Your task to perform on an android device: Open settings on Google Maps Image 0: 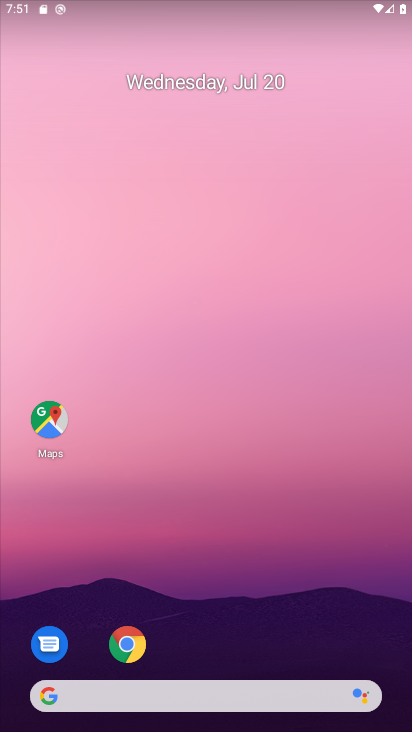
Step 0: click (48, 434)
Your task to perform on an android device: Open settings on Google Maps Image 1: 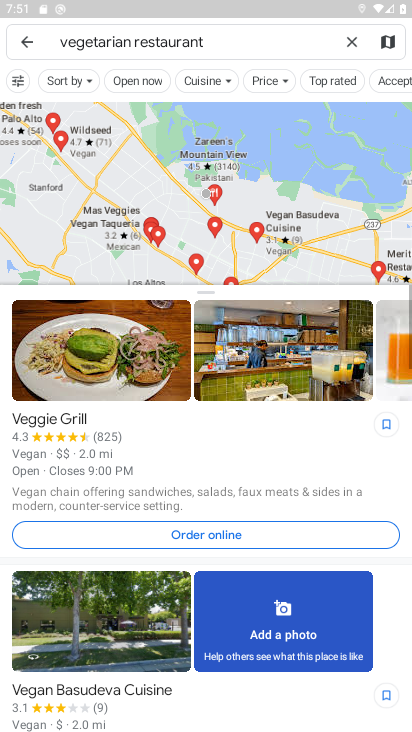
Step 1: click (41, 160)
Your task to perform on an android device: Open settings on Google Maps Image 2: 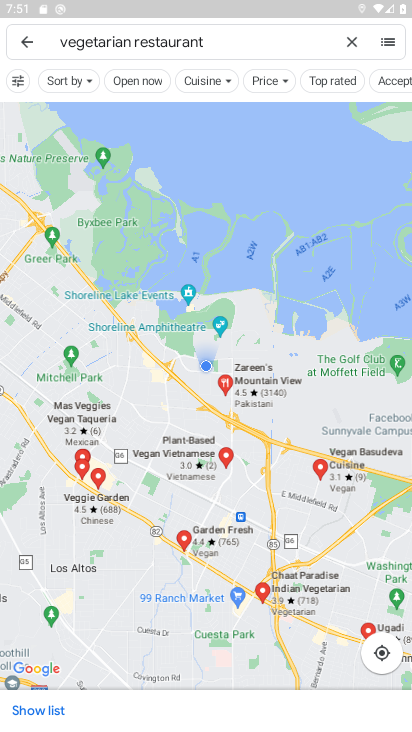
Step 2: click (27, 38)
Your task to perform on an android device: Open settings on Google Maps Image 3: 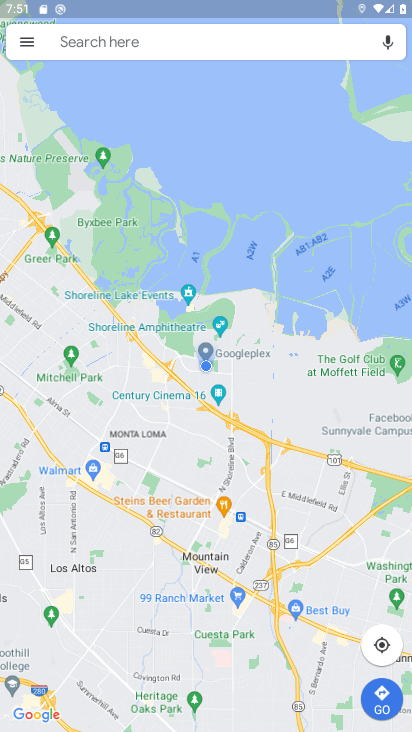
Step 3: click (27, 48)
Your task to perform on an android device: Open settings on Google Maps Image 4: 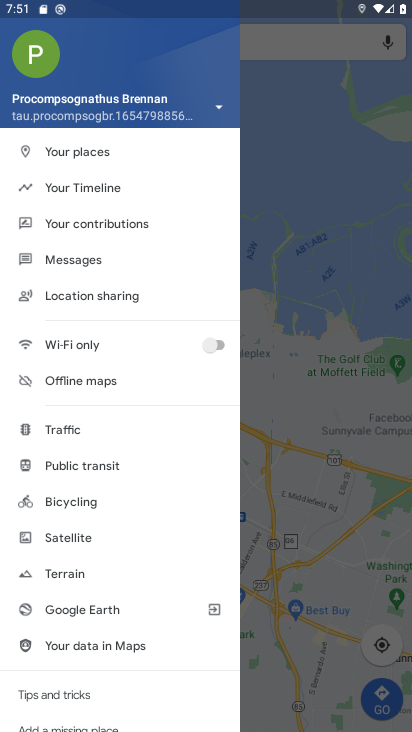
Step 4: drag from (75, 627) to (77, 319)
Your task to perform on an android device: Open settings on Google Maps Image 5: 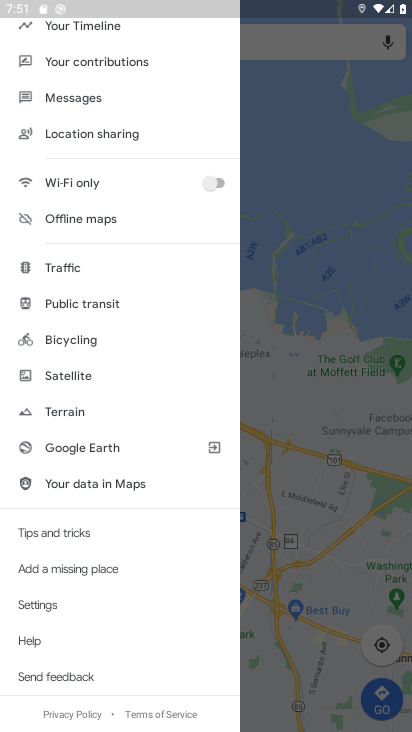
Step 5: click (20, 602)
Your task to perform on an android device: Open settings on Google Maps Image 6: 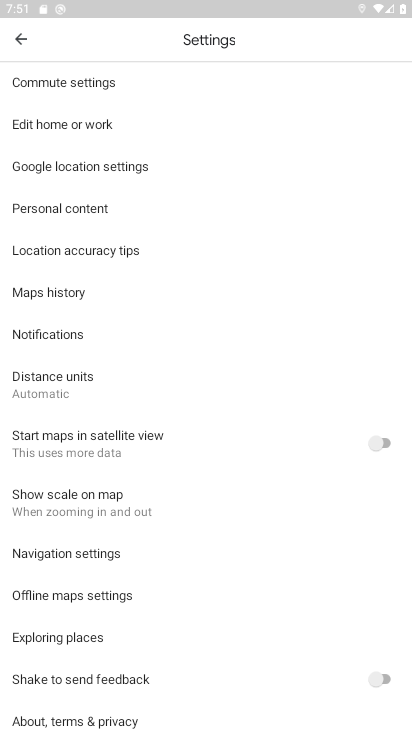
Step 6: task complete